Your task to perform on an android device: toggle airplane mode Image 0: 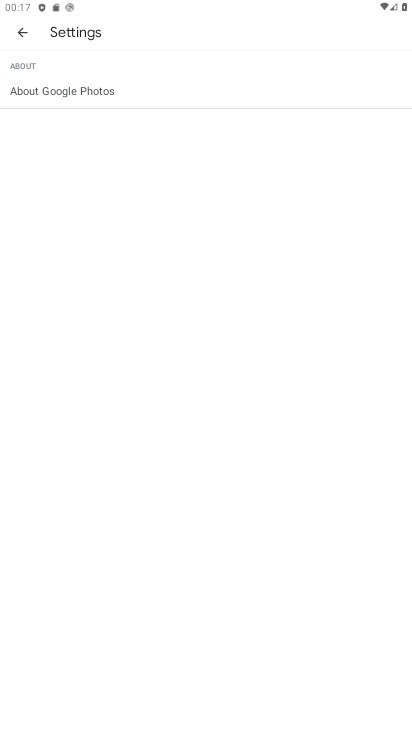
Step 0: drag from (242, 716) to (140, 142)
Your task to perform on an android device: toggle airplane mode Image 1: 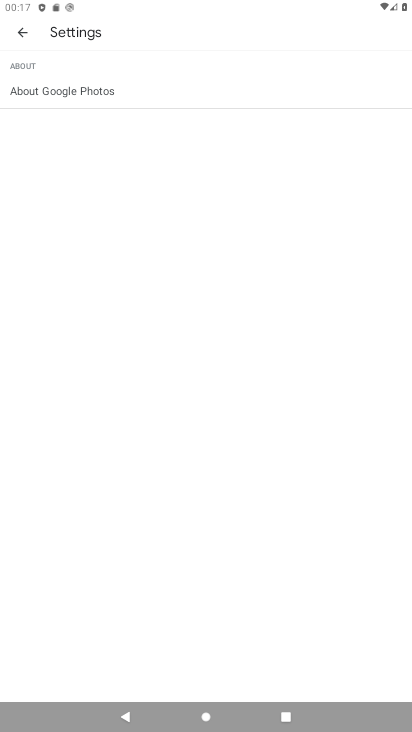
Step 1: click (16, 31)
Your task to perform on an android device: toggle airplane mode Image 2: 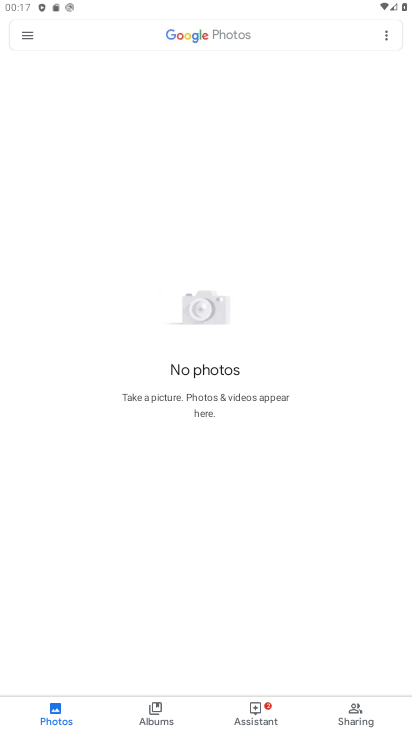
Step 2: press back button
Your task to perform on an android device: toggle airplane mode Image 3: 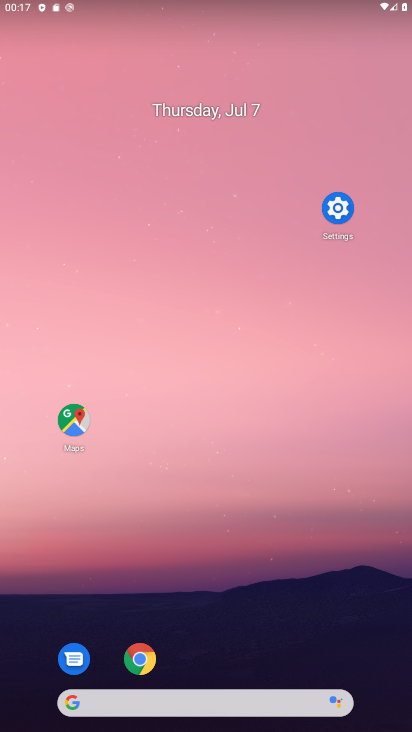
Step 3: drag from (248, 679) to (113, 202)
Your task to perform on an android device: toggle airplane mode Image 4: 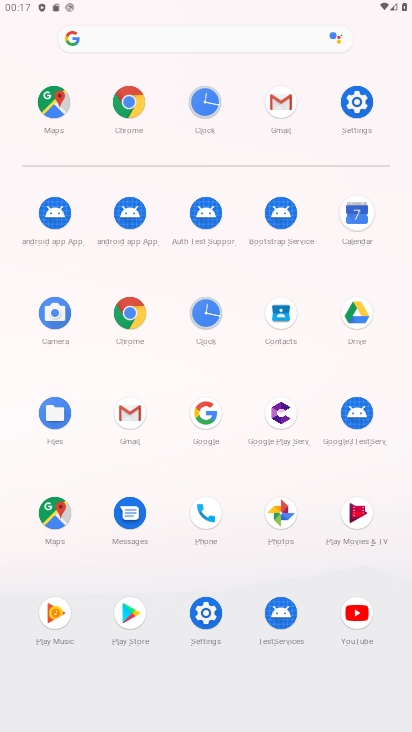
Step 4: click (353, 109)
Your task to perform on an android device: toggle airplane mode Image 5: 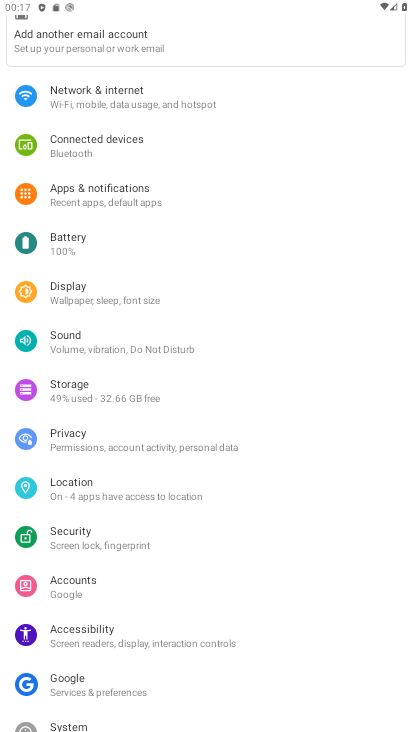
Step 5: click (94, 91)
Your task to perform on an android device: toggle airplane mode Image 6: 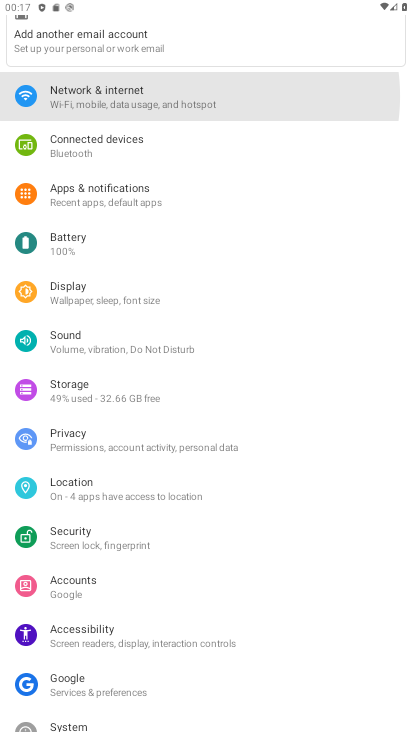
Step 6: click (95, 92)
Your task to perform on an android device: toggle airplane mode Image 7: 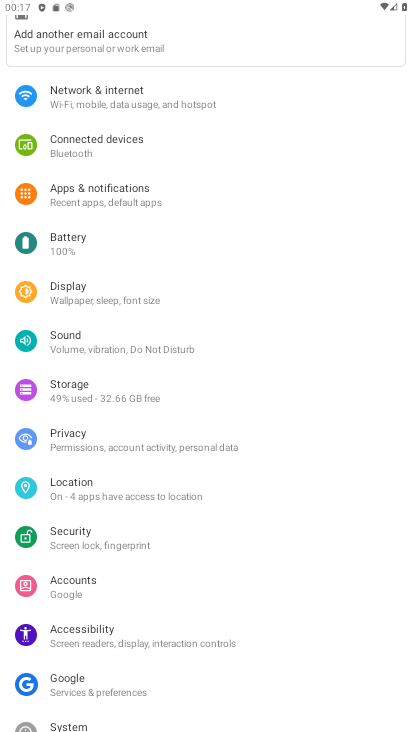
Step 7: click (95, 92)
Your task to perform on an android device: toggle airplane mode Image 8: 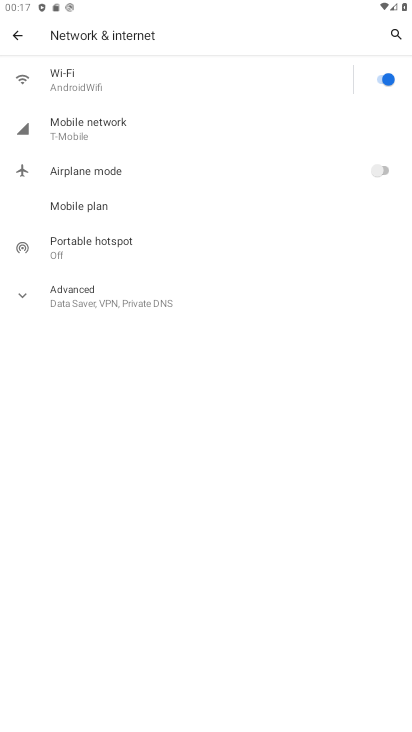
Step 8: click (101, 89)
Your task to perform on an android device: toggle airplane mode Image 9: 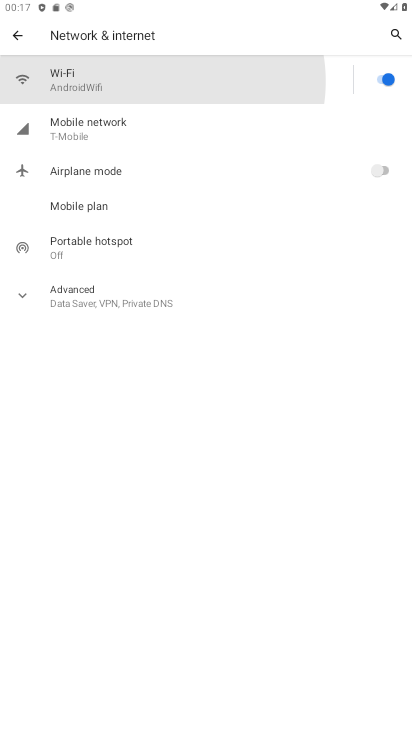
Step 9: click (102, 89)
Your task to perform on an android device: toggle airplane mode Image 10: 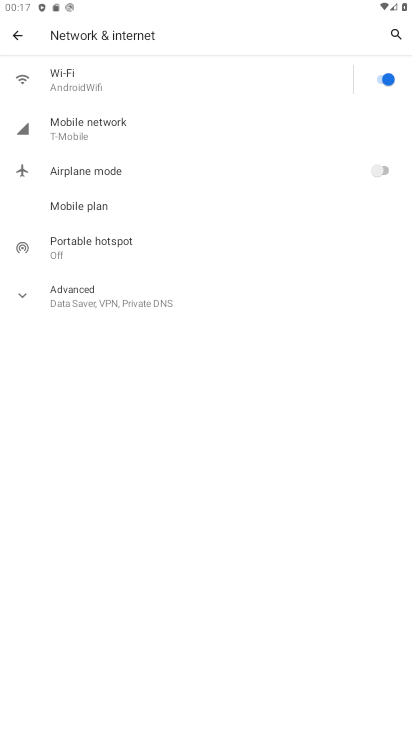
Step 10: click (103, 90)
Your task to perform on an android device: toggle airplane mode Image 11: 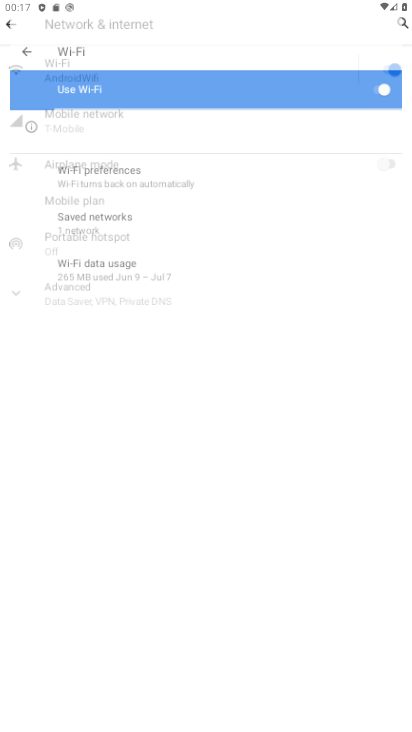
Step 11: click (103, 90)
Your task to perform on an android device: toggle airplane mode Image 12: 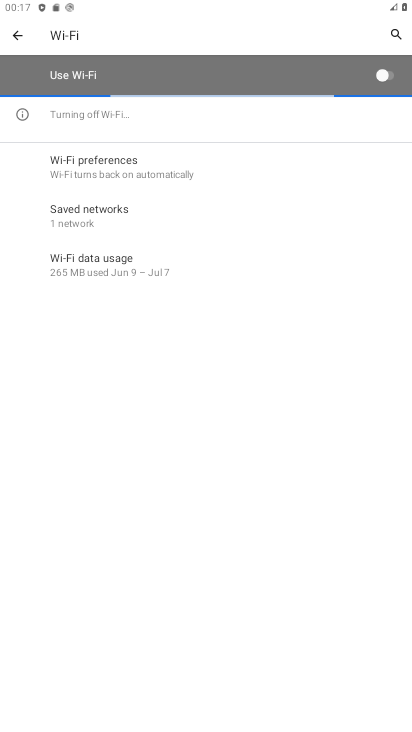
Step 12: click (132, 86)
Your task to perform on an android device: toggle airplane mode Image 13: 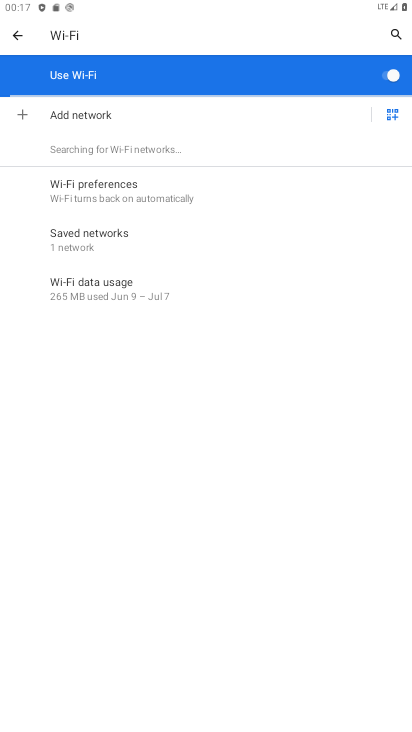
Step 13: click (13, 25)
Your task to perform on an android device: toggle airplane mode Image 14: 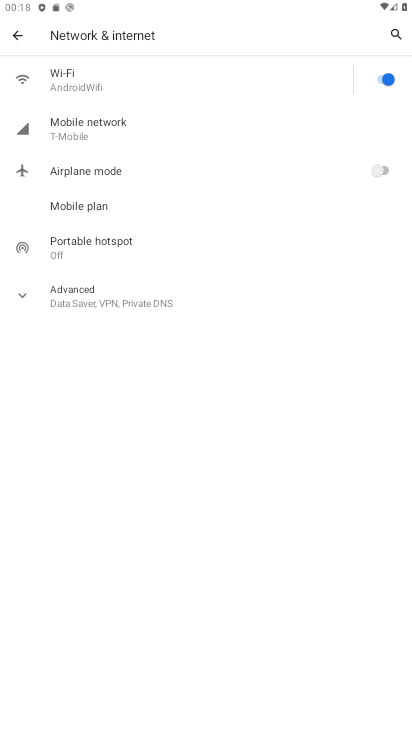
Step 14: click (370, 170)
Your task to perform on an android device: toggle airplane mode Image 15: 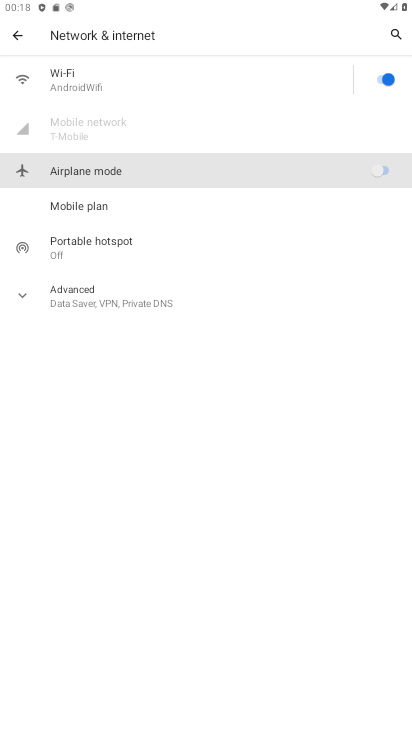
Step 15: click (372, 170)
Your task to perform on an android device: toggle airplane mode Image 16: 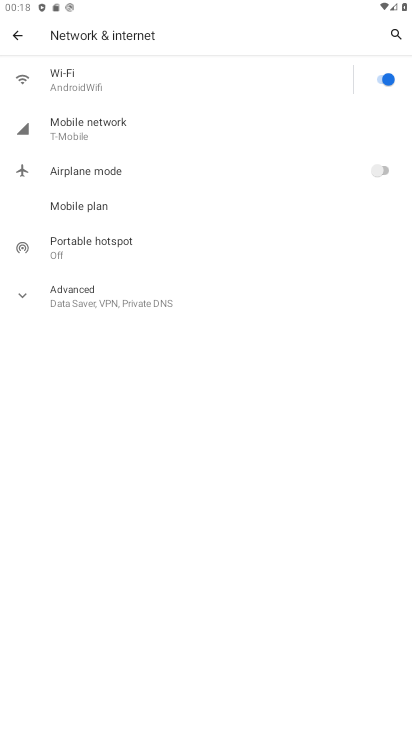
Step 16: click (382, 165)
Your task to perform on an android device: toggle airplane mode Image 17: 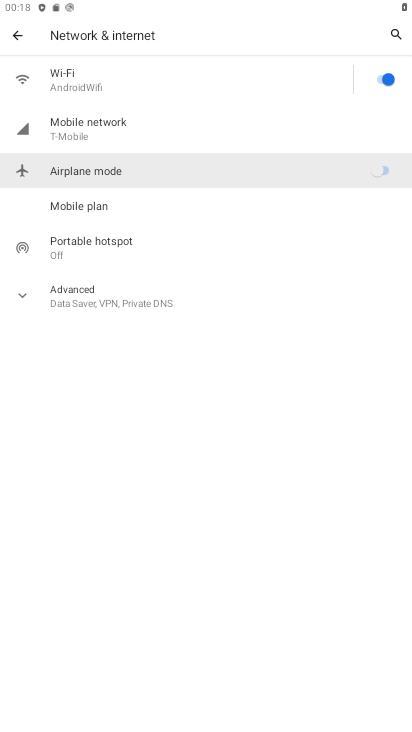
Step 17: click (383, 165)
Your task to perform on an android device: toggle airplane mode Image 18: 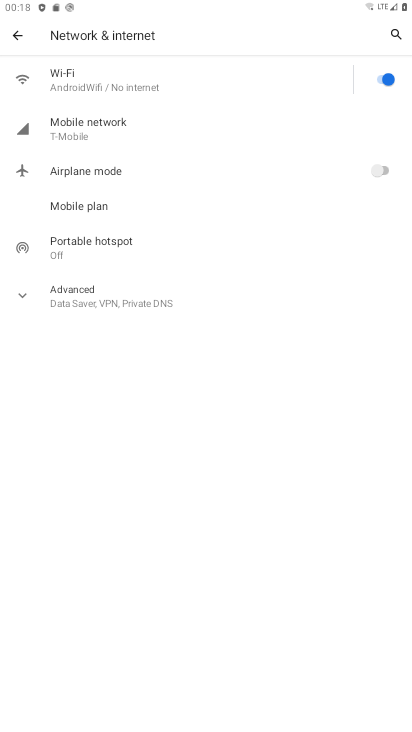
Step 18: task complete